Your task to perform on an android device: turn pop-ups off in chrome Image 0: 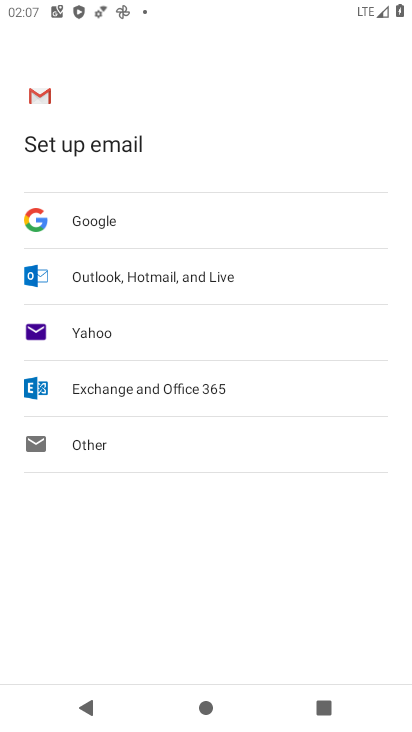
Step 0: press home button
Your task to perform on an android device: turn pop-ups off in chrome Image 1: 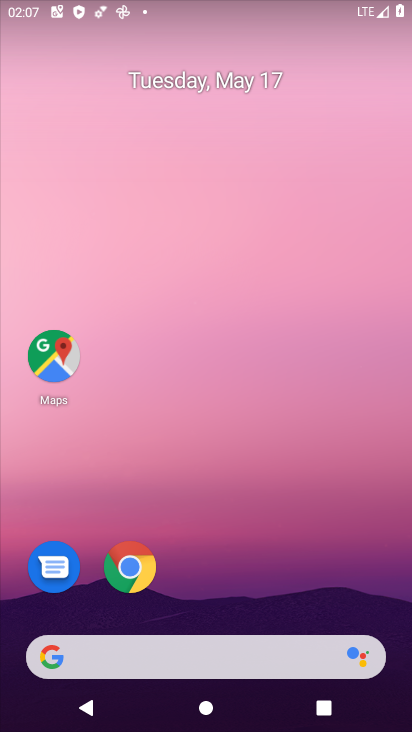
Step 1: click (125, 566)
Your task to perform on an android device: turn pop-ups off in chrome Image 2: 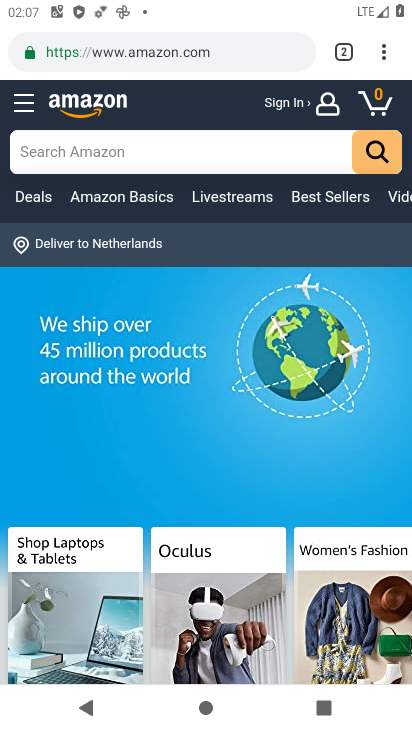
Step 2: click (382, 54)
Your task to perform on an android device: turn pop-ups off in chrome Image 3: 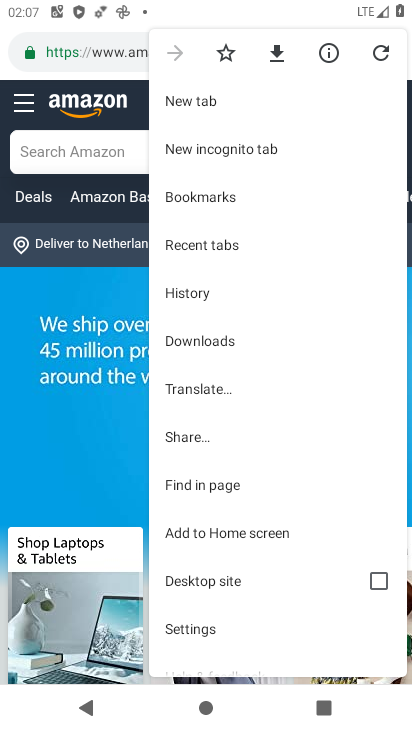
Step 3: drag from (272, 616) to (300, 170)
Your task to perform on an android device: turn pop-ups off in chrome Image 4: 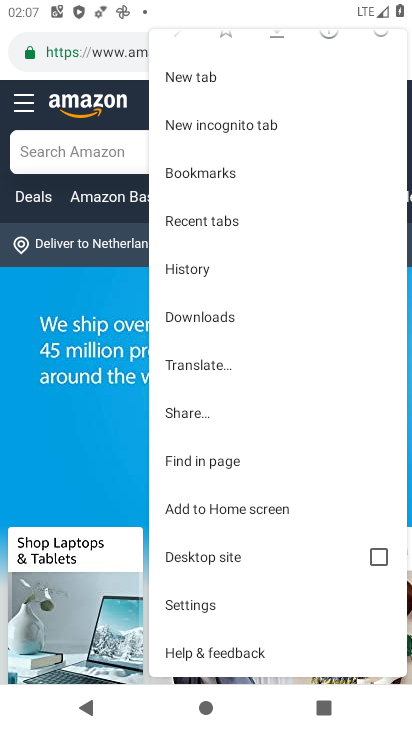
Step 4: click (191, 604)
Your task to perform on an android device: turn pop-ups off in chrome Image 5: 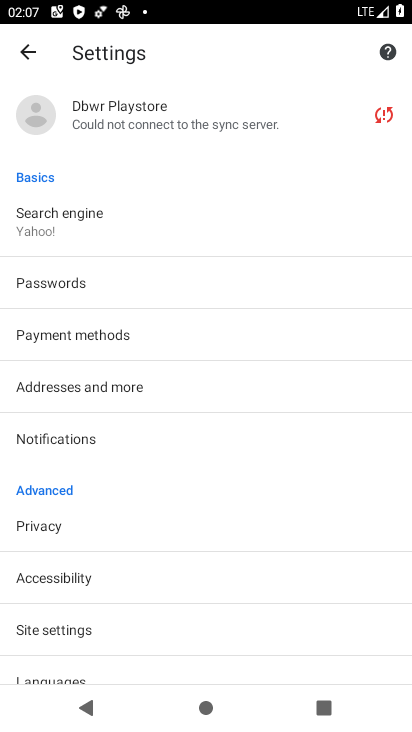
Step 5: drag from (163, 632) to (185, 321)
Your task to perform on an android device: turn pop-ups off in chrome Image 6: 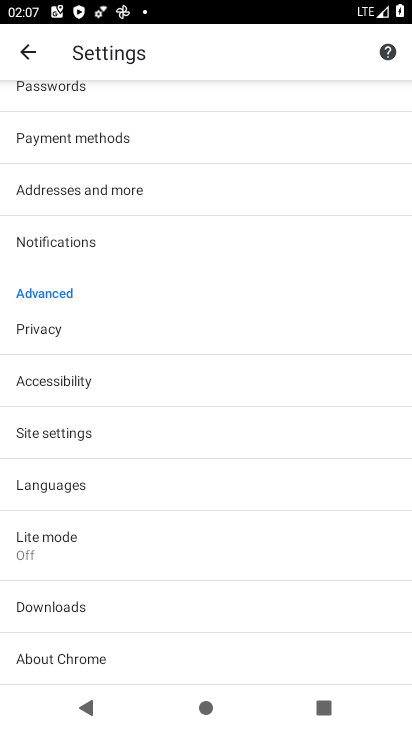
Step 6: click (45, 436)
Your task to perform on an android device: turn pop-ups off in chrome Image 7: 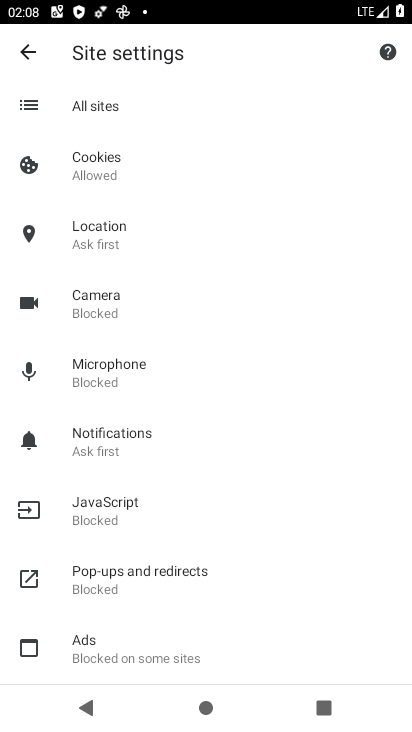
Step 7: click (115, 572)
Your task to perform on an android device: turn pop-ups off in chrome Image 8: 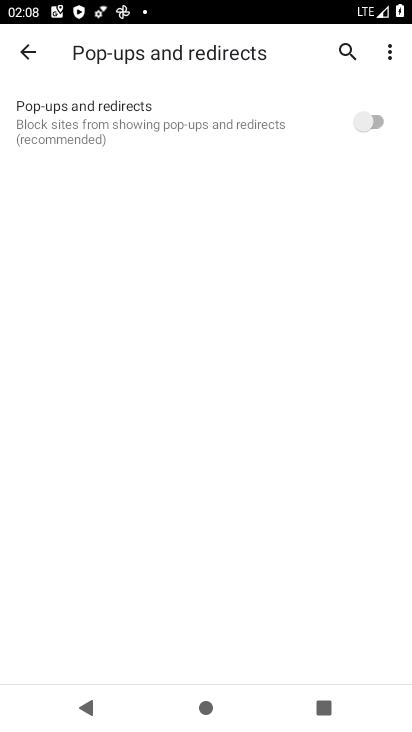
Step 8: task complete